Your task to perform on an android device: open app "Upside-Cash back on gas & food" (install if not already installed) Image 0: 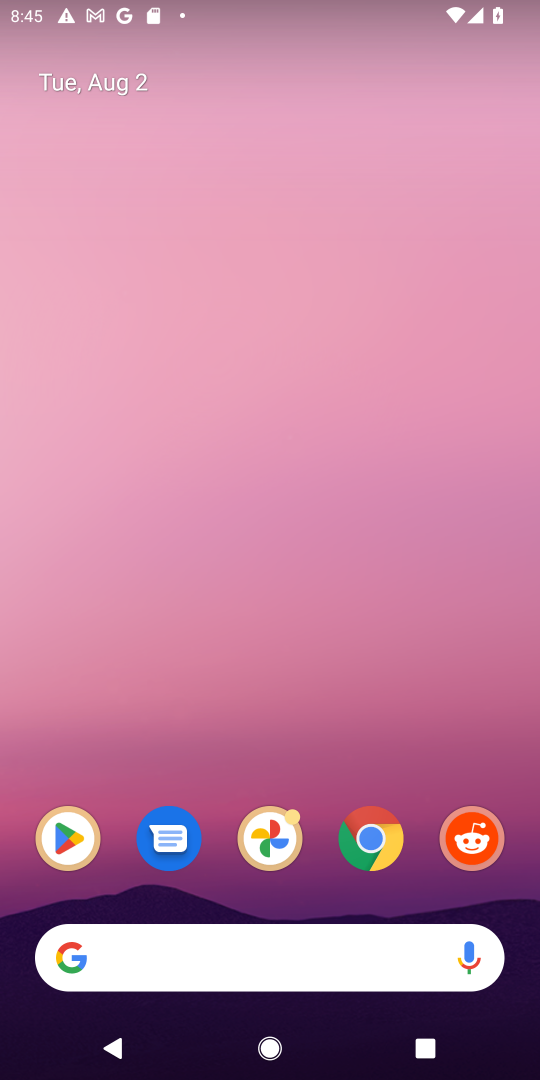
Step 0: drag from (312, 563) to (303, 51)
Your task to perform on an android device: open app "Upside-Cash back on gas & food" (install if not already installed) Image 1: 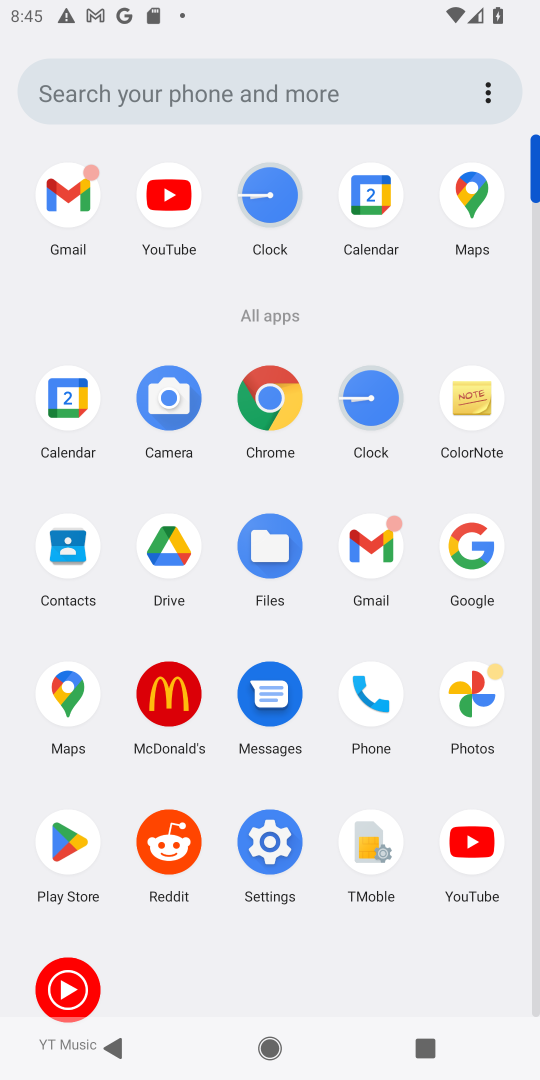
Step 1: click (66, 845)
Your task to perform on an android device: open app "Upside-Cash back on gas & food" (install if not already installed) Image 2: 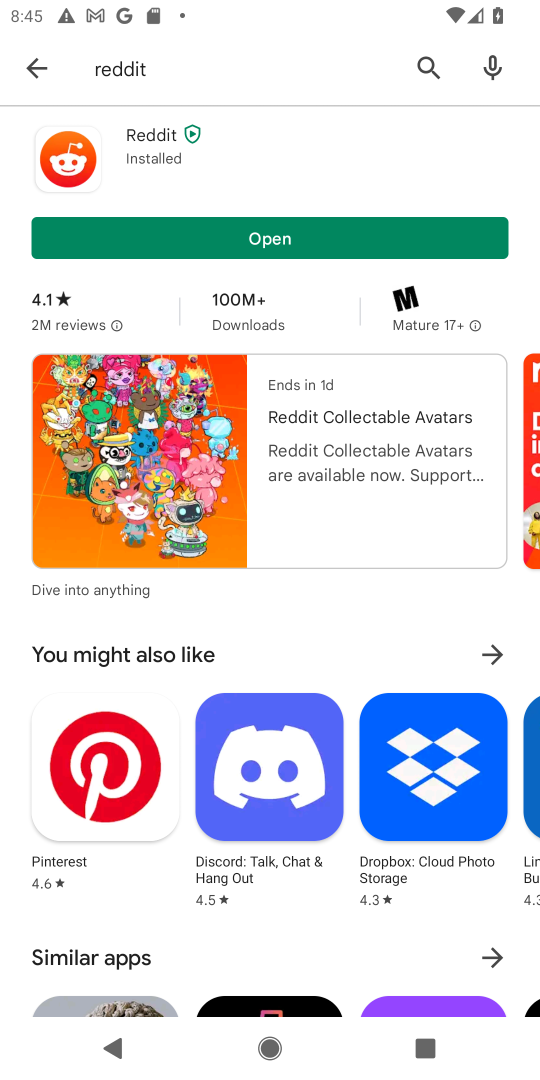
Step 2: click (431, 69)
Your task to perform on an android device: open app "Upside-Cash back on gas & food" (install if not already installed) Image 3: 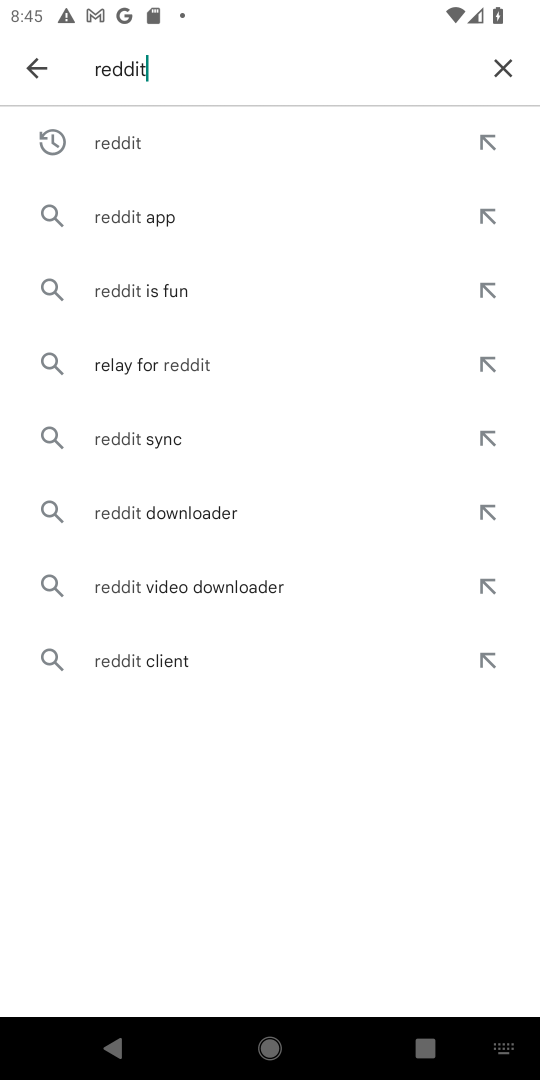
Step 3: click (505, 68)
Your task to perform on an android device: open app "Upside-Cash back on gas & food" (install if not already installed) Image 4: 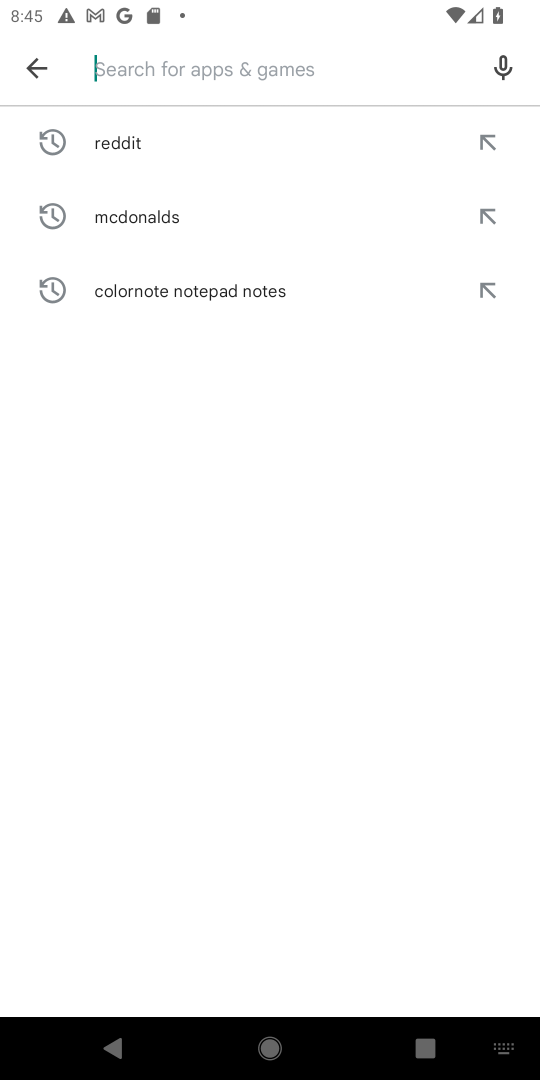
Step 4: type "Upside-Cash back on gas & food"
Your task to perform on an android device: open app "Upside-Cash back on gas & food" (install if not already installed) Image 5: 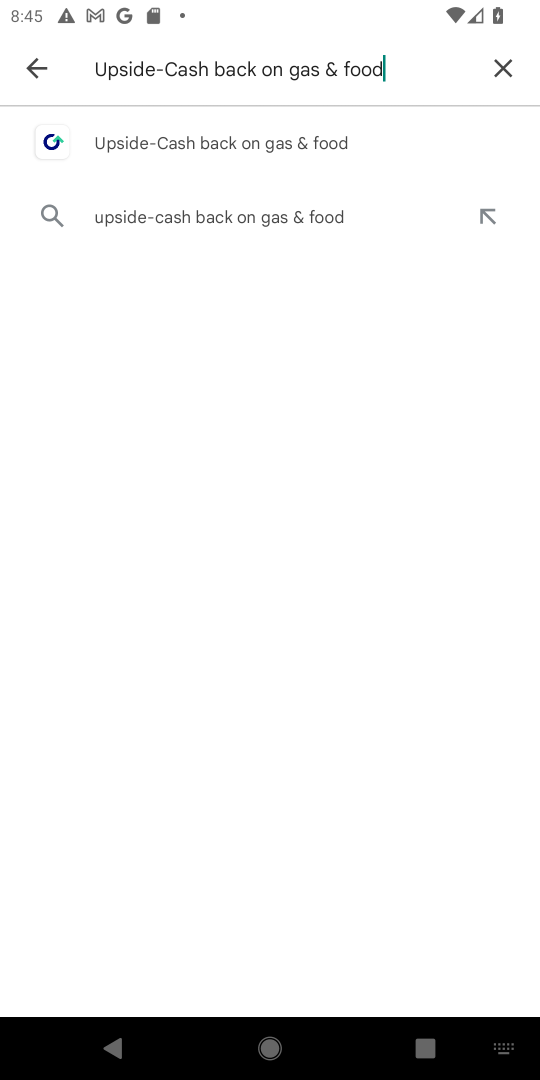
Step 5: click (283, 135)
Your task to perform on an android device: open app "Upside-Cash back on gas & food" (install if not already installed) Image 6: 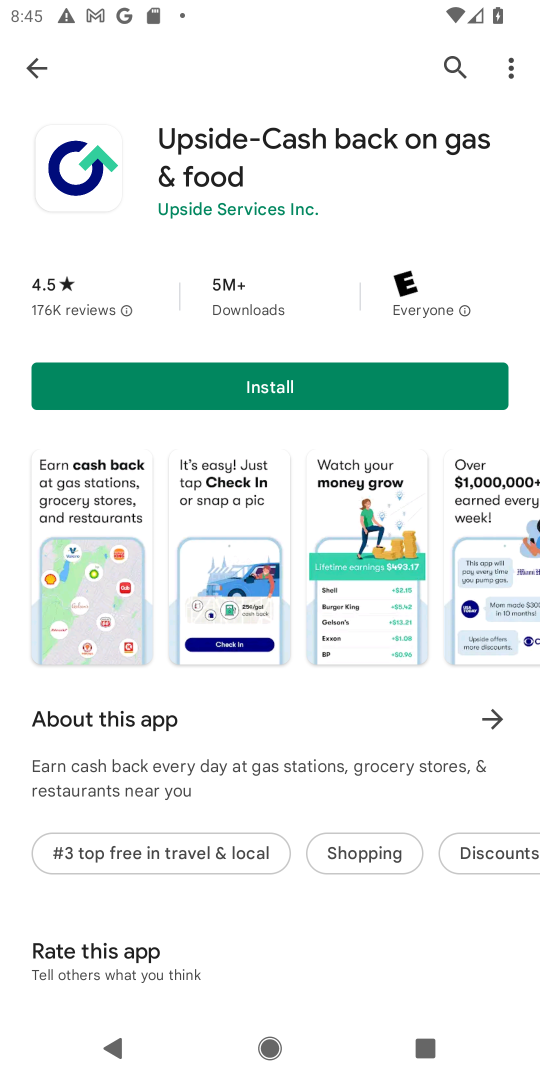
Step 6: click (277, 383)
Your task to perform on an android device: open app "Upside-Cash back on gas & food" (install if not already installed) Image 7: 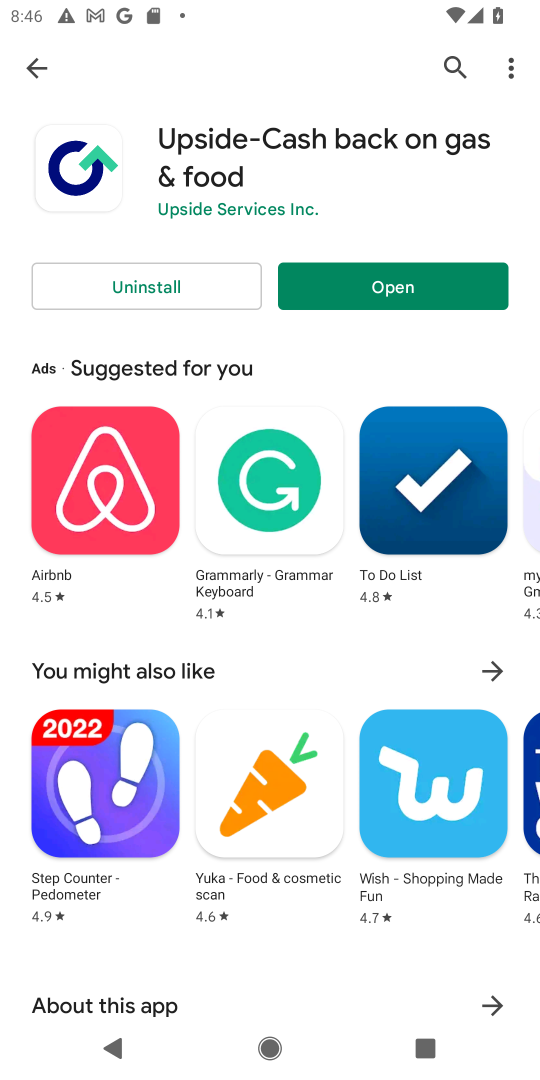
Step 7: click (439, 286)
Your task to perform on an android device: open app "Upside-Cash back on gas & food" (install if not already installed) Image 8: 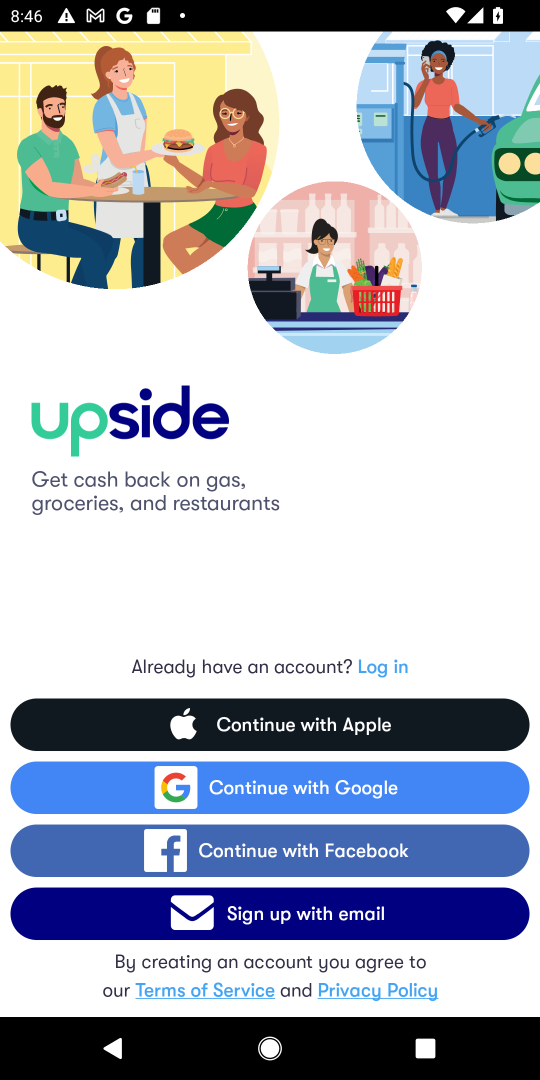
Step 8: task complete